Your task to perform on an android device: turn off notifications settings in the gmail app Image 0: 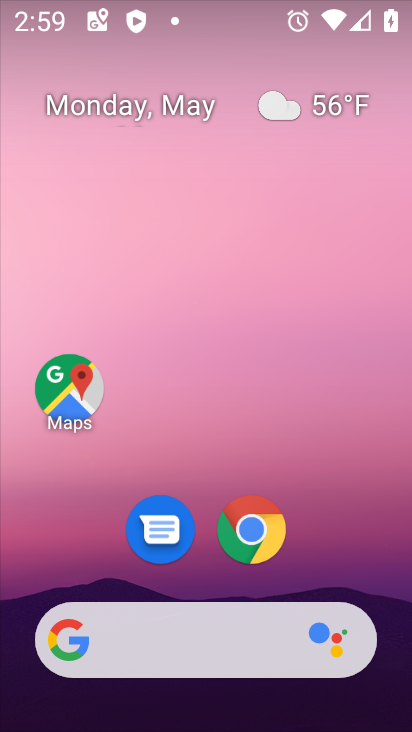
Step 0: drag from (331, 558) to (328, 24)
Your task to perform on an android device: turn off notifications settings in the gmail app Image 1: 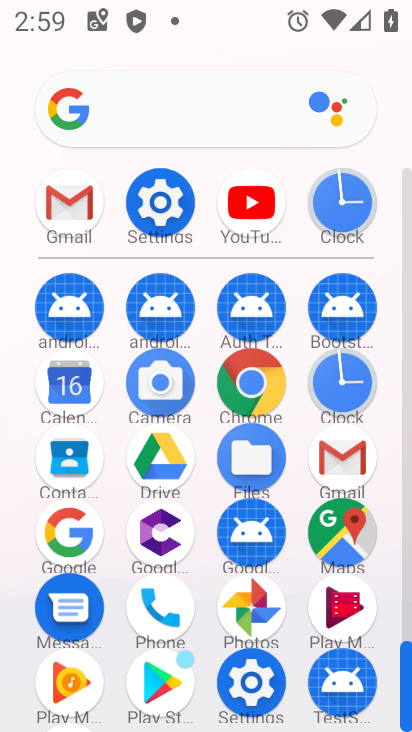
Step 1: click (345, 450)
Your task to perform on an android device: turn off notifications settings in the gmail app Image 2: 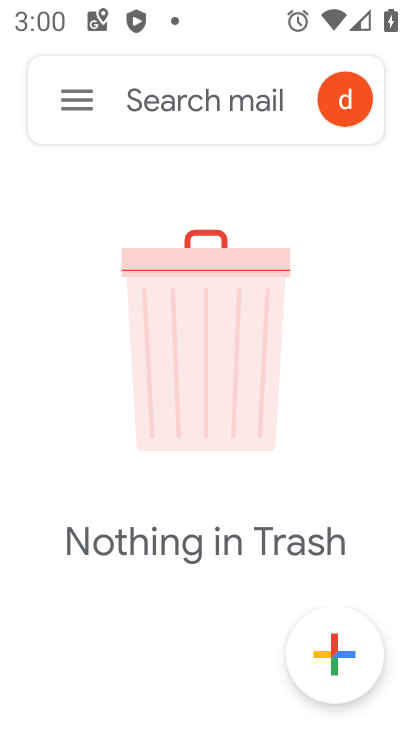
Step 2: click (64, 98)
Your task to perform on an android device: turn off notifications settings in the gmail app Image 3: 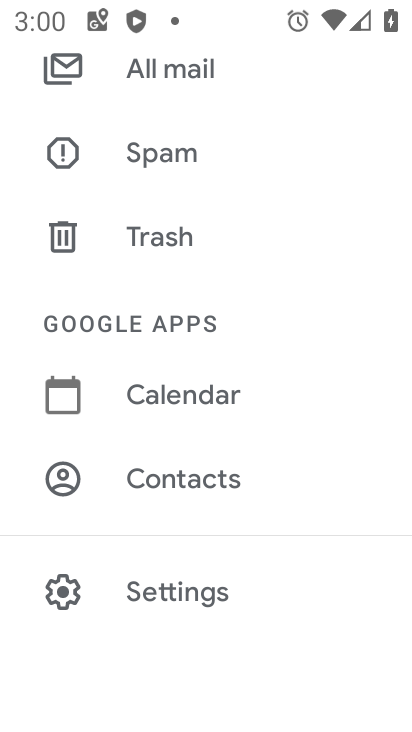
Step 3: click (181, 589)
Your task to perform on an android device: turn off notifications settings in the gmail app Image 4: 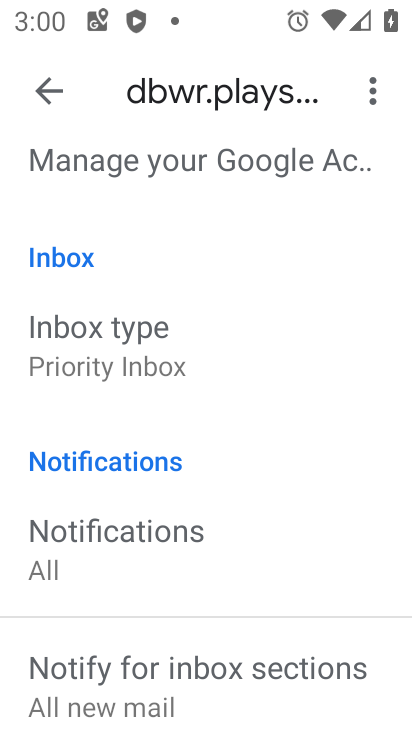
Step 4: drag from (184, 622) to (209, 328)
Your task to perform on an android device: turn off notifications settings in the gmail app Image 5: 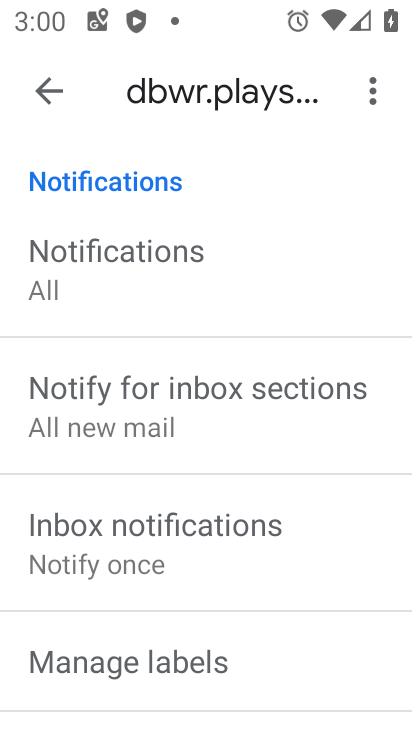
Step 5: drag from (165, 660) to (176, 417)
Your task to perform on an android device: turn off notifications settings in the gmail app Image 6: 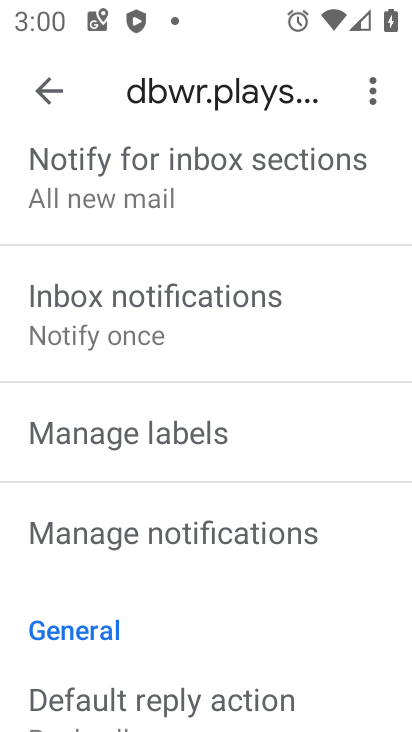
Step 6: click (218, 525)
Your task to perform on an android device: turn off notifications settings in the gmail app Image 7: 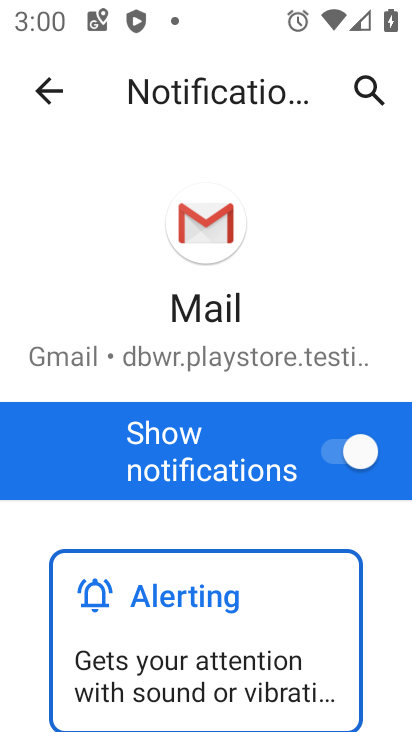
Step 7: click (353, 443)
Your task to perform on an android device: turn off notifications settings in the gmail app Image 8: 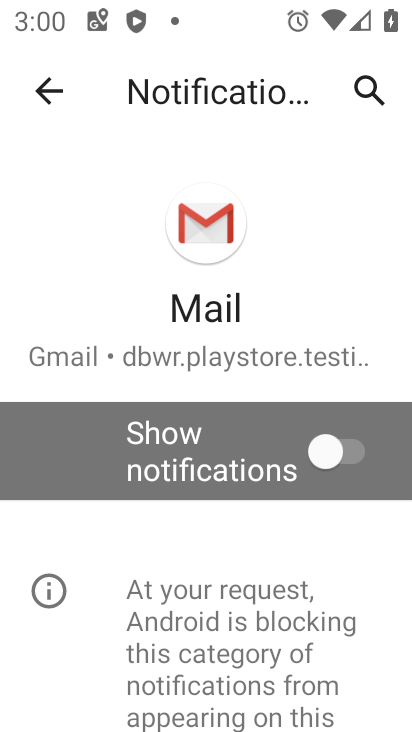
Step 8: task complete